Your task to perform on an android device: Open wifi settings Image 0: 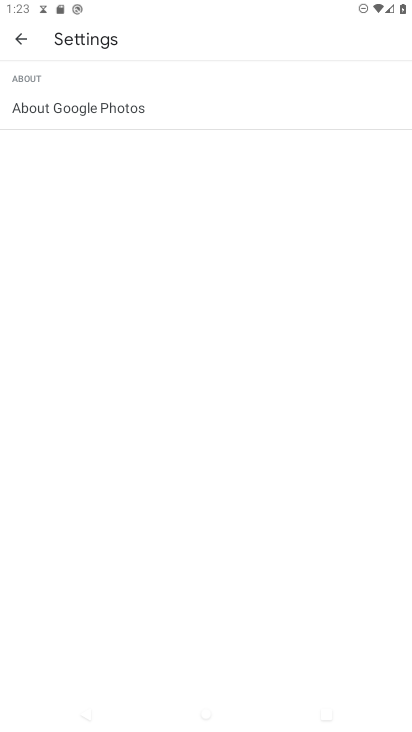
Step 0: press home button
Your task to perform on an android device: Open wifi settings Image 1: 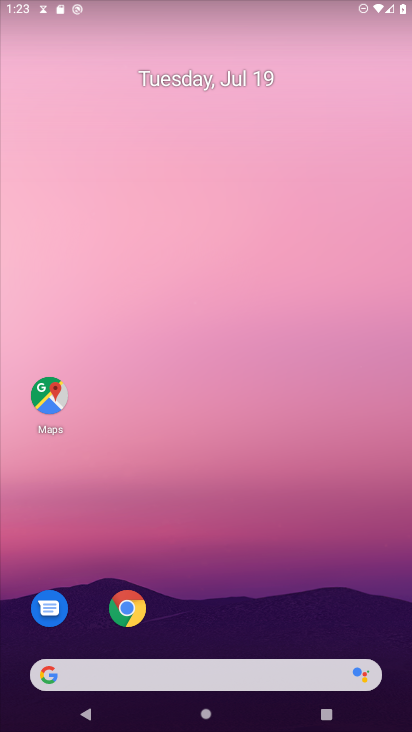
Step 1: drag from (125, 539) to (224, 3)
Your task to perform on an android device: Open wifi settings Image 2: 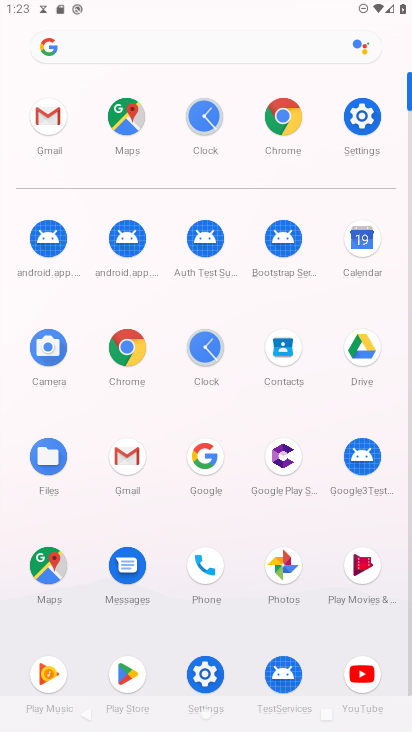
Step 2: click (357, 119)
Your task to perform on an android device: Open wifi settings Image 3: 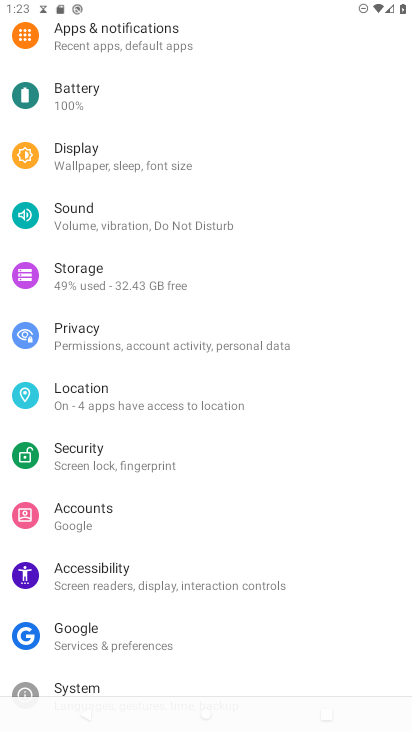
Step 3: drag from (208, 163) to (227, 658)
Your task to perform on an android device: Open wifi settings Image 4: 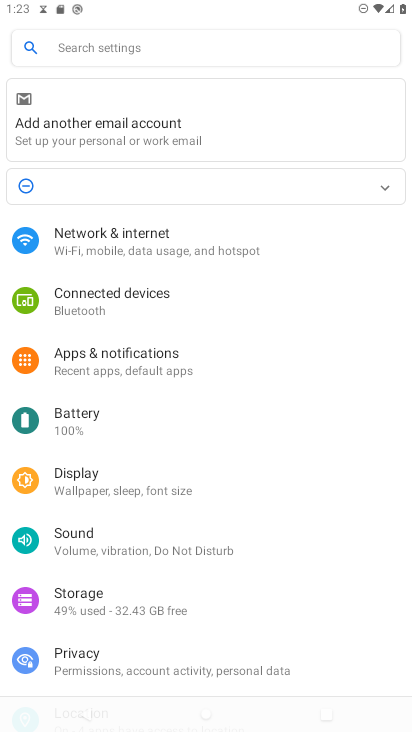
Step 4: click (180, 244)
Your task to perform on an android device: Open wifi settings Image 5: 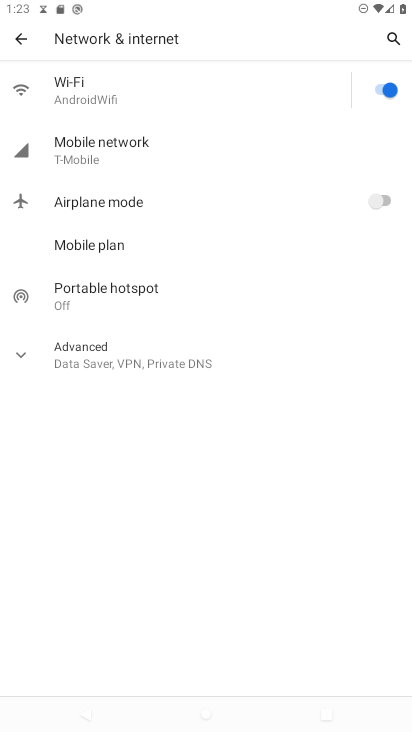
Step 5: task complete